Your task to perform on an android device: refresh tabs in the chrome app Image 0: 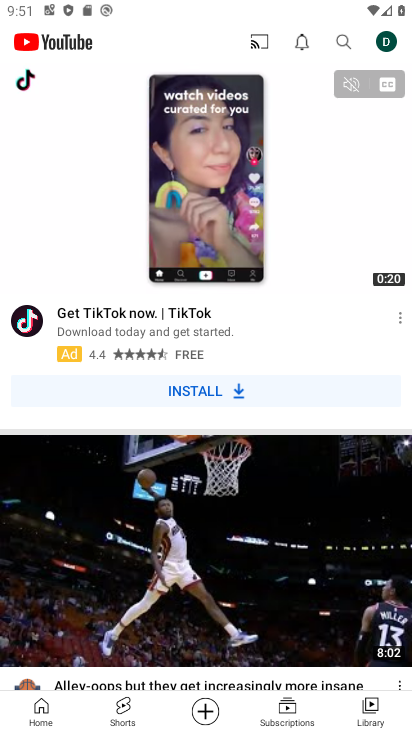
Step 0: press home button
Your task to perform on an android device: refresh tabs in the chrome app Image 1: 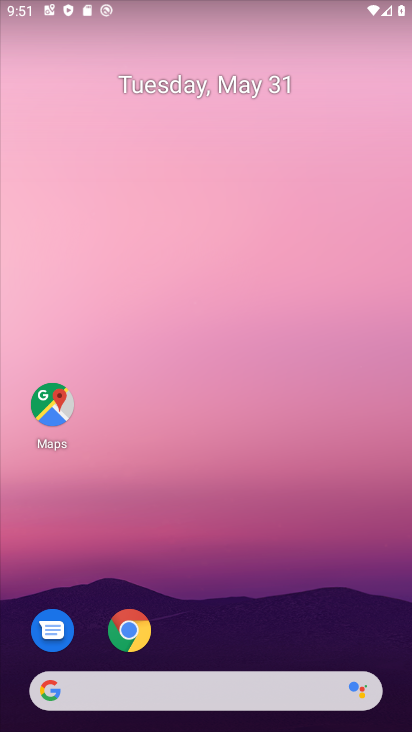
Step 1: click (134, 649)
Your task to perform on an android device: refresh tabs in the chrome app Image 2: 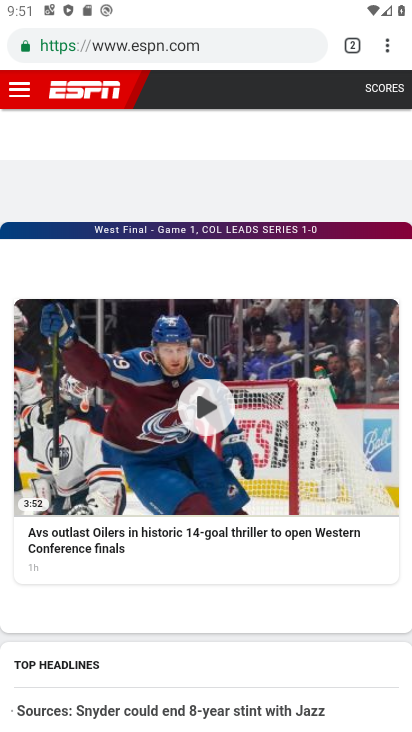
Step 2: click (390, 46)
Your task to perform on an android device: refresh tabs in the chrome app Image 3: 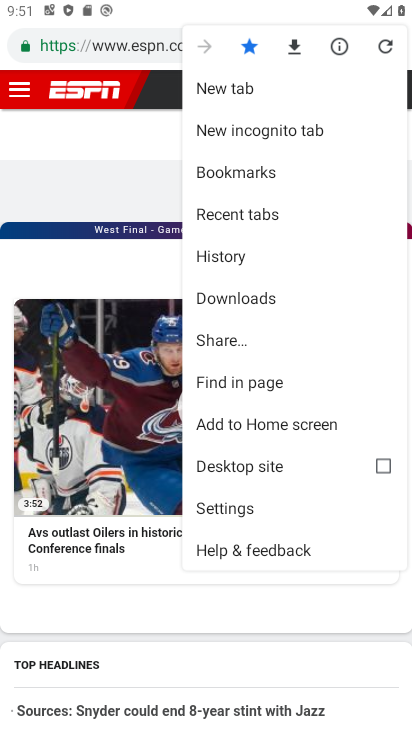
Step 3: click (383, 47)
Your task to perform on an android device: refresh tabs in the chrome app Image 4: 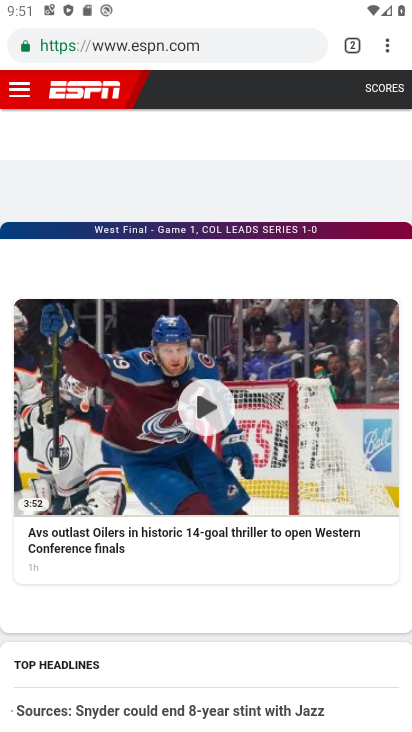
Step 4: task complete